Your task to perform on an android device: Clear all items from cart on bestbuy. Image 0: 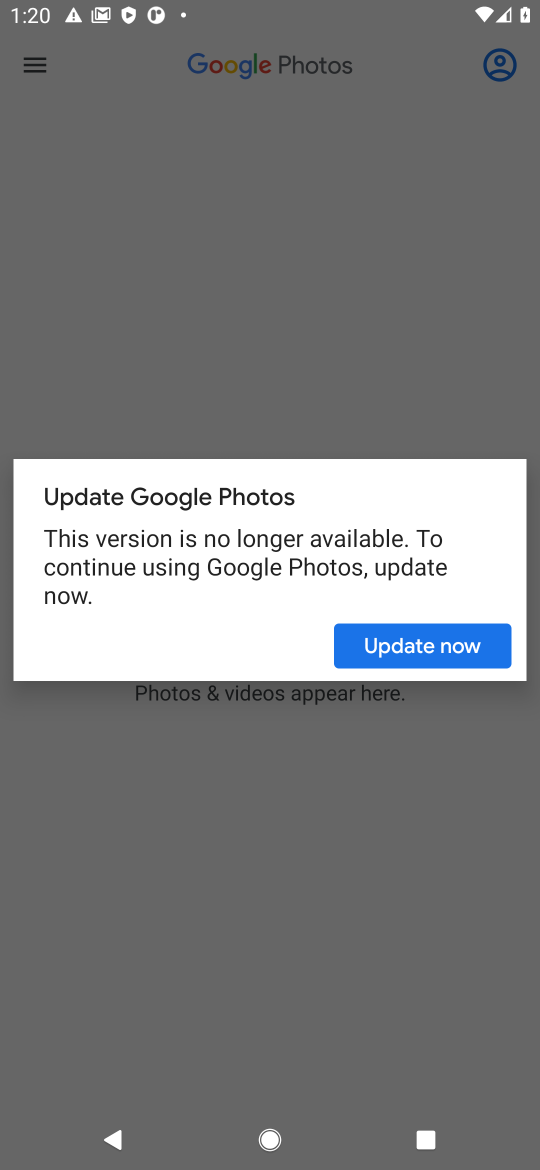
Step 0: press home button
Your task to perform on an android device: Clear all items from cart on bestbuy. Image 1: 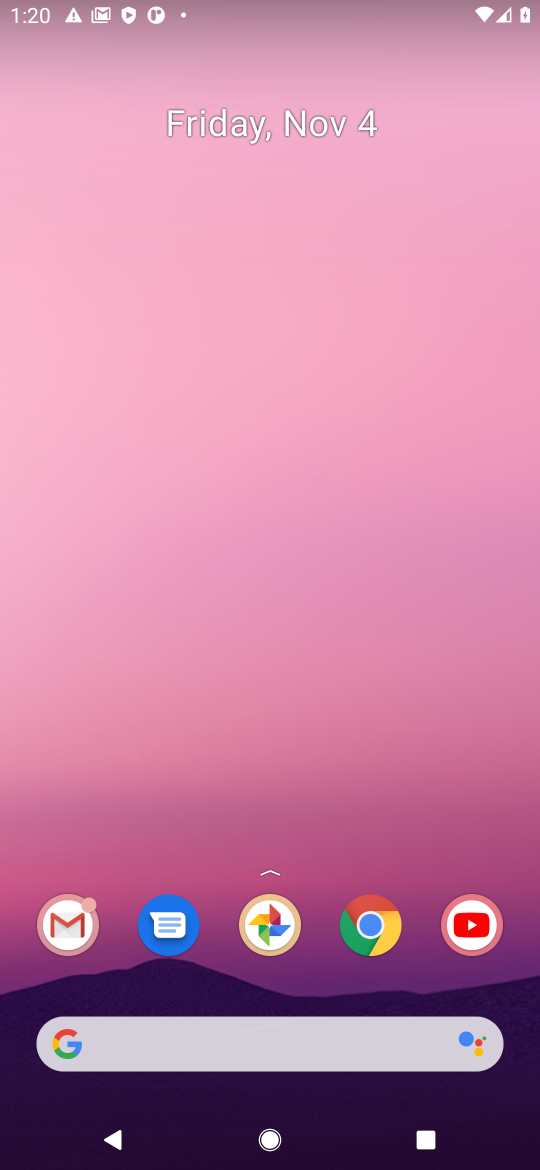
Step 1: click (379, 923)
Your task to perform on an android device: Clear all items from cart on bestbuy. Image 2: 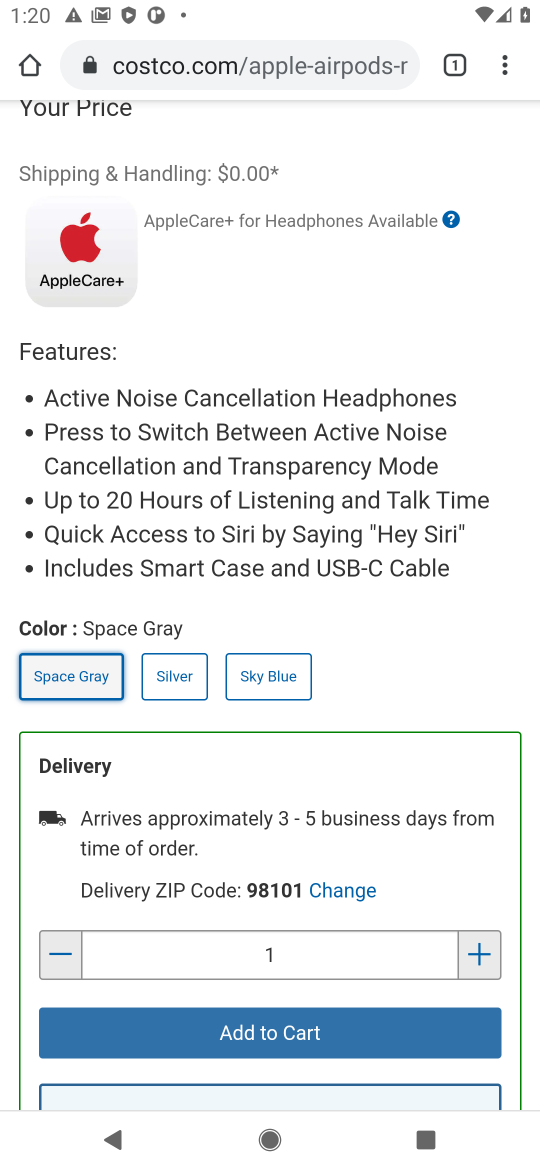
Step 2: click (280, 66)
Your task to perform on an android device: Clear all items from cart on bestbuy. Image 3: 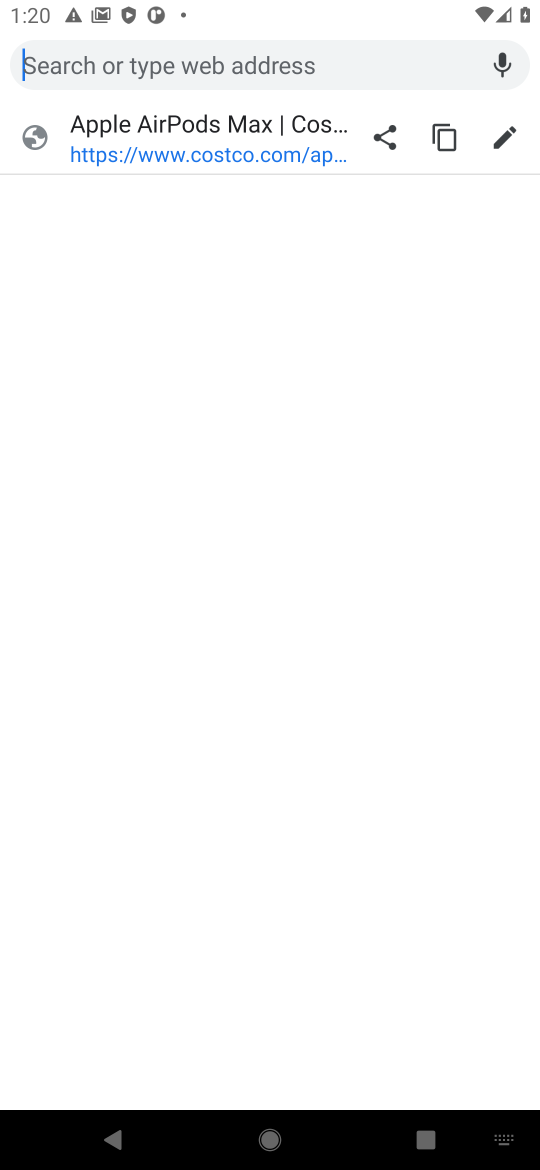
Step 3: type "bestbuy"
Your task to perform on an android device: Clear all items from cart on bestbuy. Image 4: 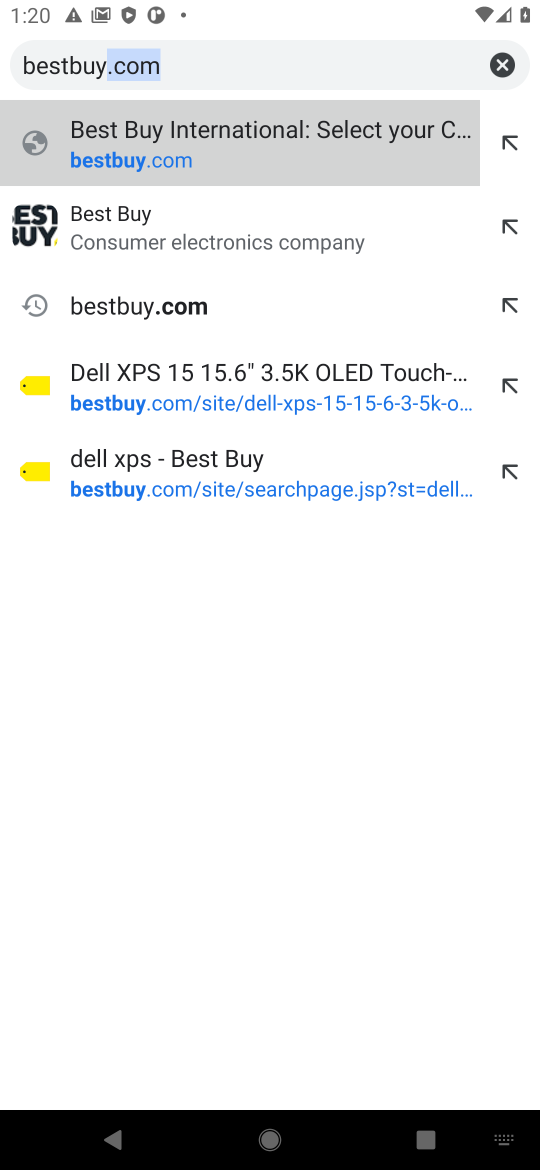
Step 4: press enter
Your task to perform on an android device: Clear all items from cart on bestbuy. Image 5: 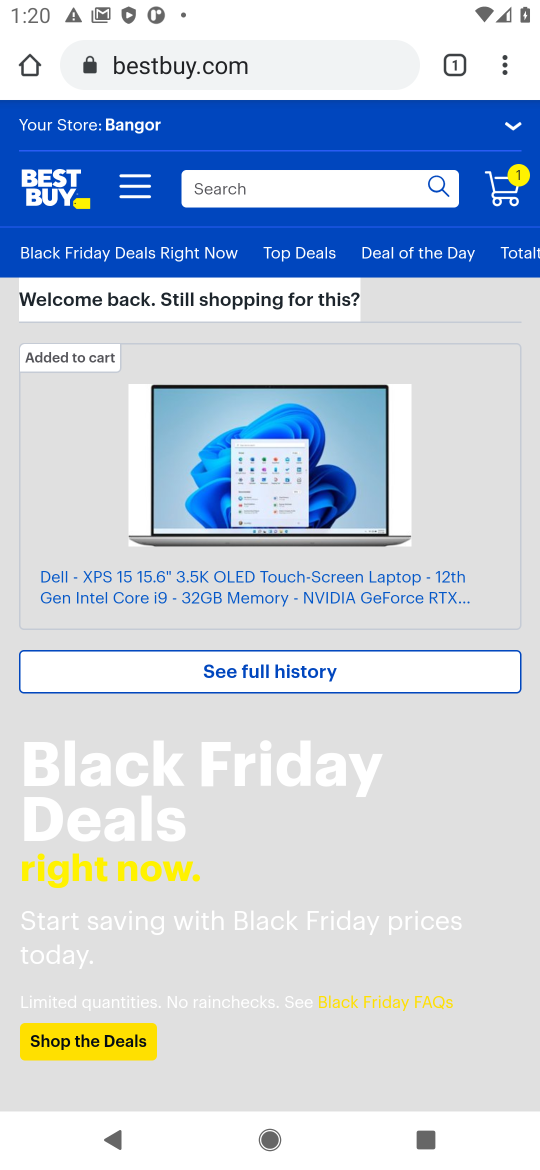
Step 5: click (504, 203)
Your task to perform on an android device: Clear all items from cart on bestbuy. Image 6: 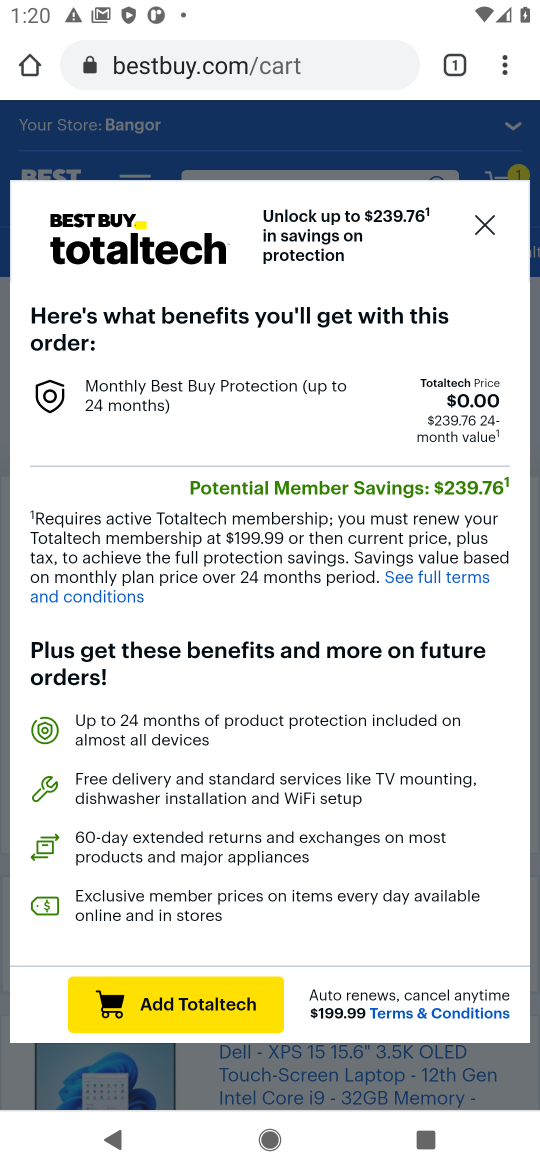
Step 6: click (478, 221)
Your task to perform on an android device: Clear all items from cart on bestbuy. Image 7: 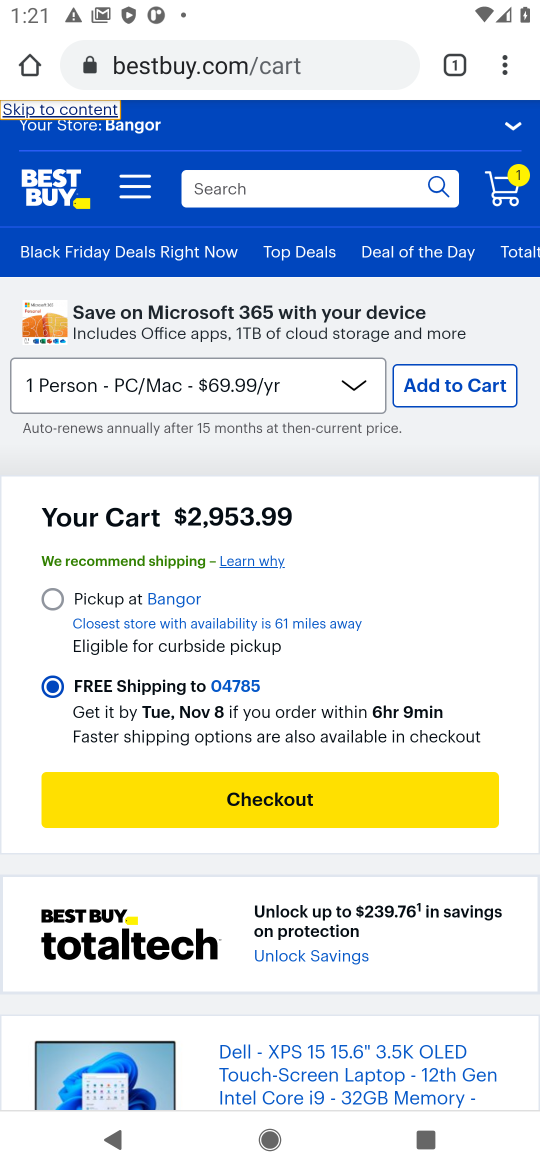
Step 7: drag from (345, 930) to (345, 549)
Your task to perform on an android device: Clear all items from cart on bestbuy. Image 8: 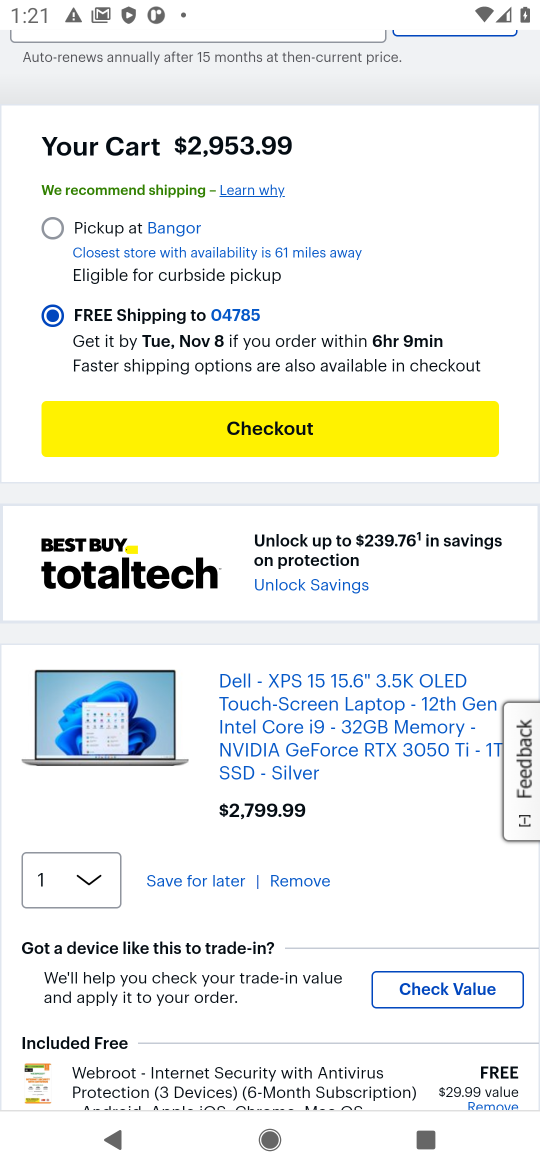
Step 8: click (303, 879)
Your task to perform on an android device: Clear all items from cart on bestbuy. Image 9: 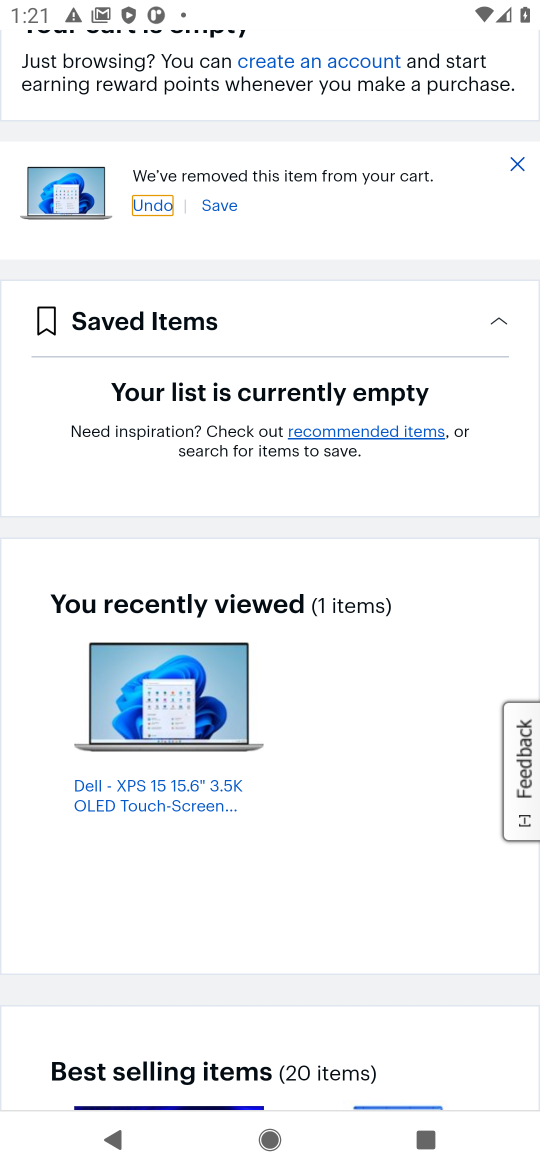
Step 9: click (512, 161)
Your task to perform on an android device: Clear all items from cart on bestbuy. Image 10: 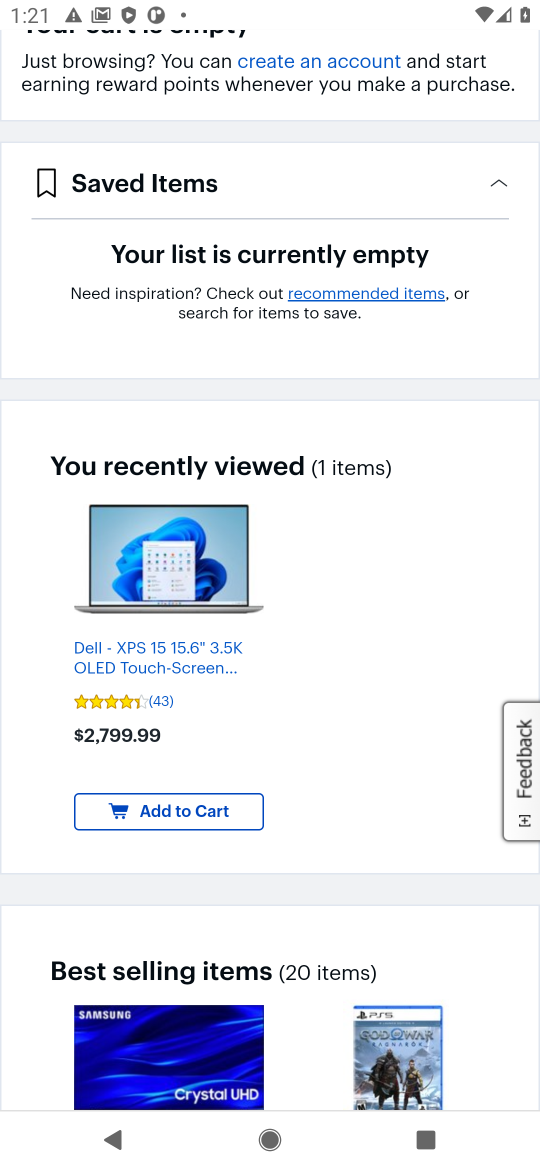
Step 10: task complete